Your task to perform on an android device: make emails show in primary in the gmail app Image 0: 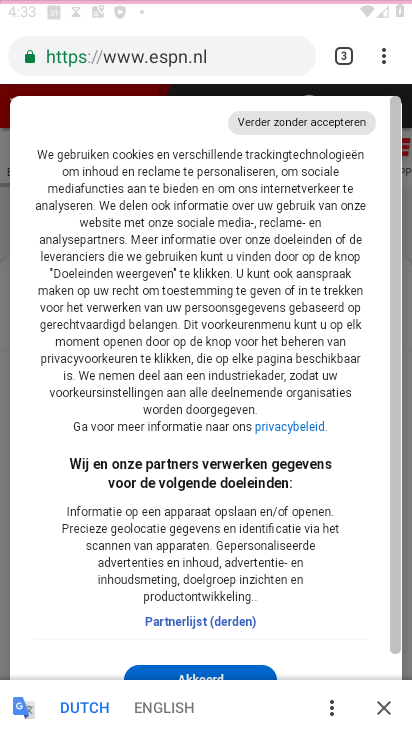
Step 0: click (143, 119)
Your task to perform on an android device: make emails show in primary in the gmail app Image 1: 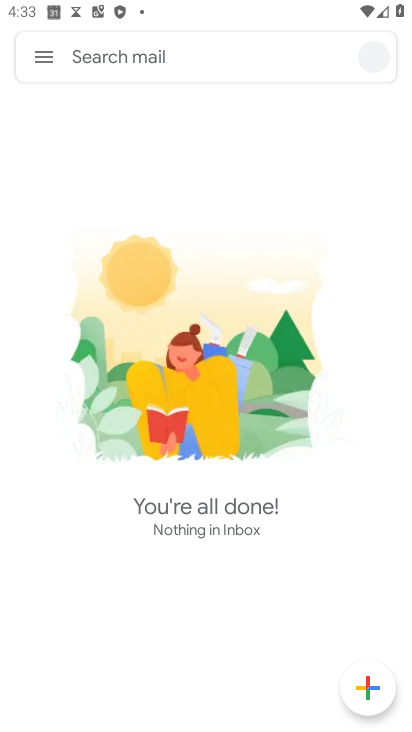
Step 1: drag from (228, 599) to (191, 93)
Your task to perform on an android device: make emails show in primary in the gmail app Image 2: 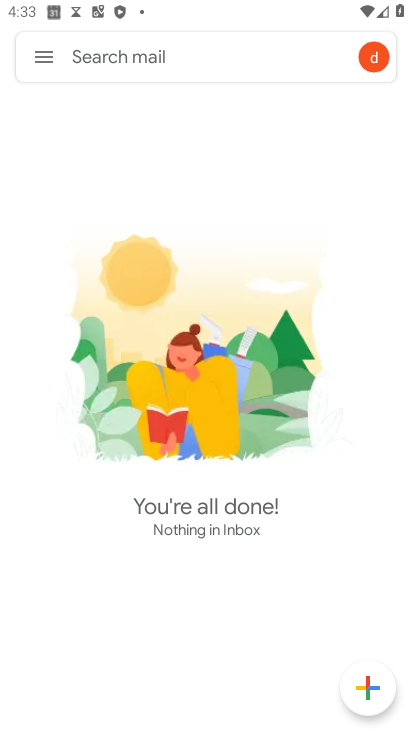
Step 2: press back button
Your task to perform on an android device: make emails show in primary in the gmail app Image 3: 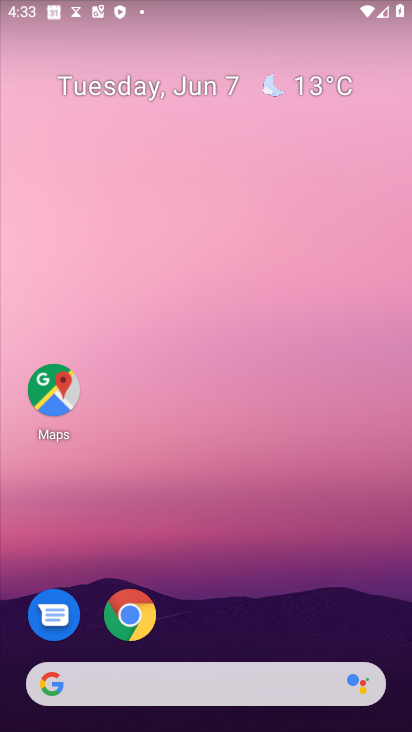
Step 3: drag from (244, 712) to (133, 215)
Your task to perform on an android device: make emails show in primary in the gmail app Image 4: 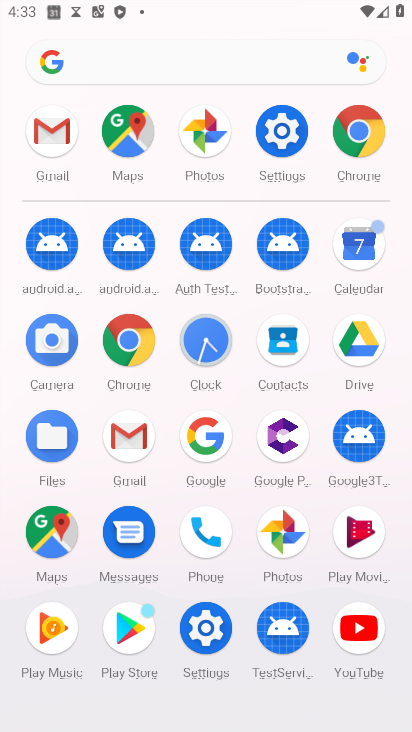
Step 4: click (125, 447)
Your task to perform on an android device: make emails show in primary in the gmail app Image 5: 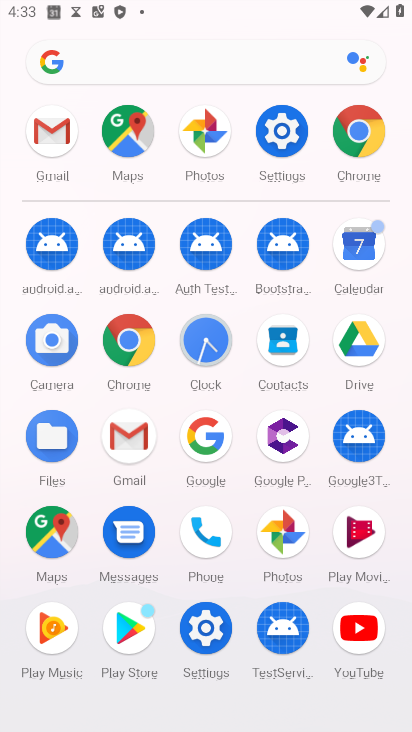
Step 5: click (125, 447)
Your task to perform on an android device: make emails show in primary in the gmail app Image 6: 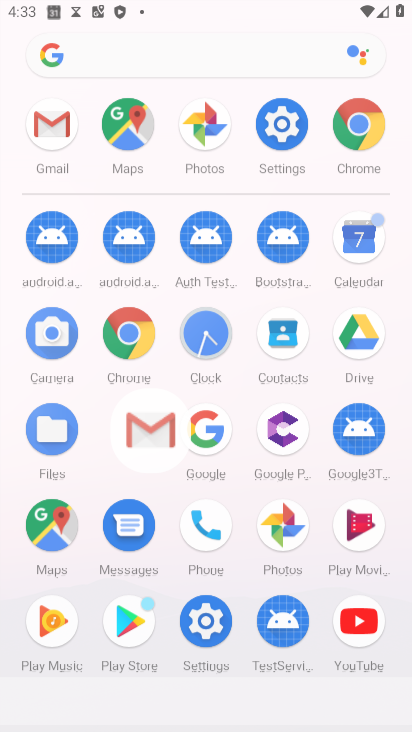
Step 6: click (126, 445)
Your task to perform on an android device: make emails show in primary in the gmail app Image 7: 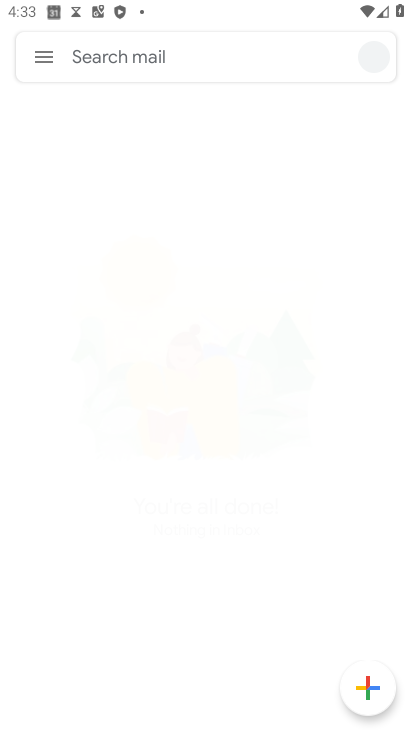
Step 7: click (122, 448)
Your task to perform on an android device: make emails show in primary in the gmail app Image 8: 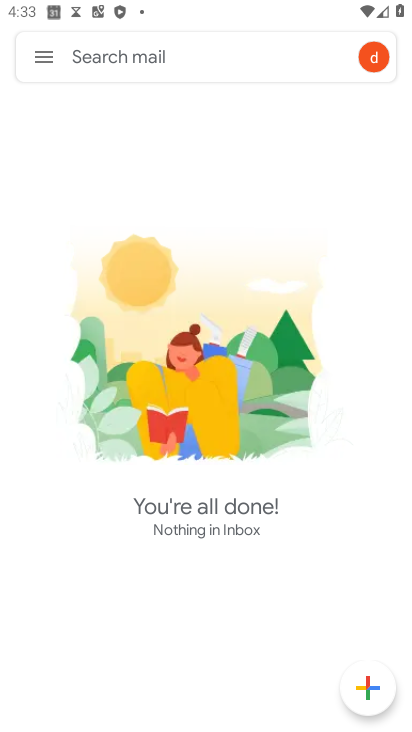
Step 8: click (50, 62)
Your task to perform on an android device: make emails show in primary in the gmail app Image 9: 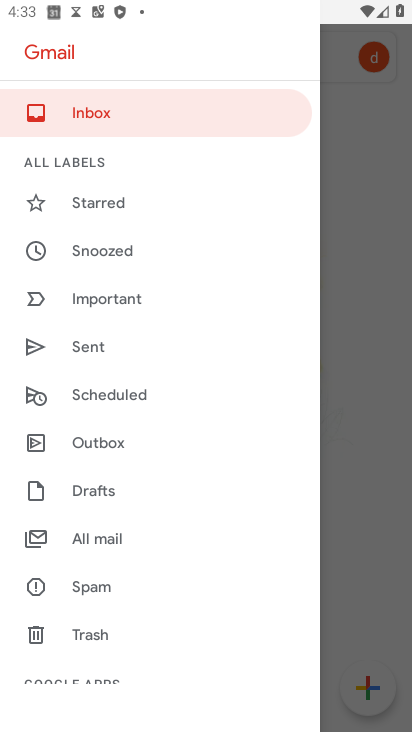
Step 9: drag from (93, 538) to (52, 265)
Your task to perform on an android device: make emails show in primary in the gmail app Image 10: 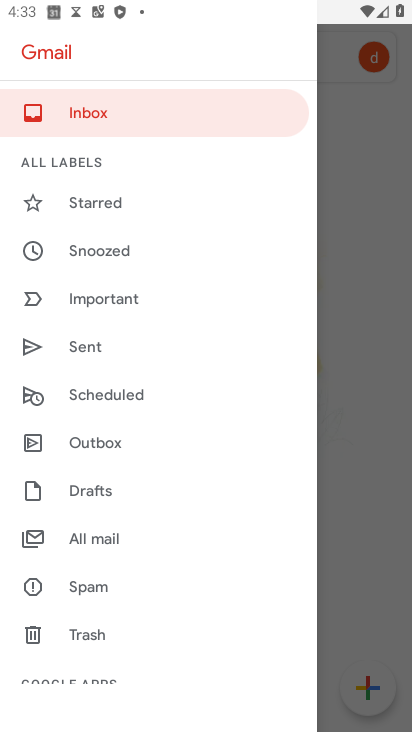
Step 10: drag from (81, 510) to (56, 186)
Your task to perform on an android device: make emails show in primary in the gmail app Image 11: 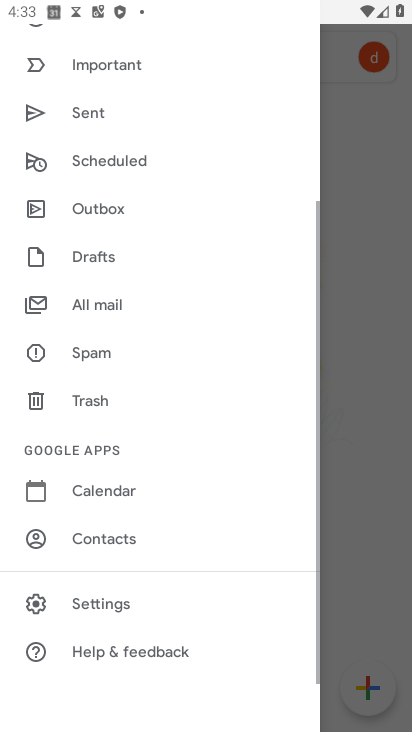
Step 11: drag from (64, 454) to (78, 223)
Your task to perform on an android device: make emails show in primary in the gmail app Image 12: 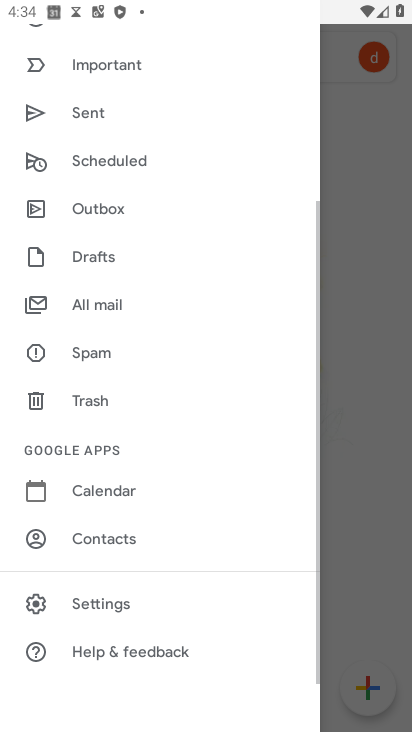
Step 12: click (111, 604)
Your task to perform on an android device: make emails show in primary in the gmail app Image 13: 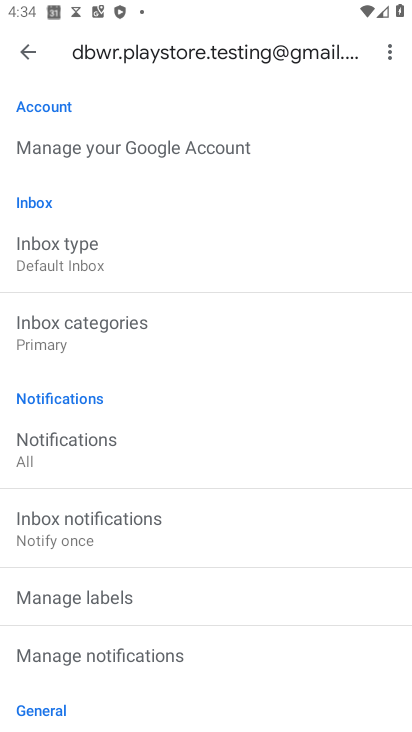
Step 13: drag from (78, 538) to (71, 175)
Your task to perform on an android device: make emails show in primary in the gmail app Image 14: 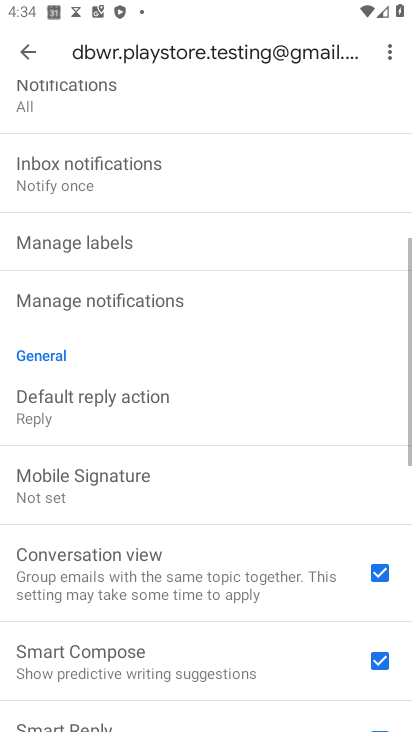
Step 14: drag from (69, 422) to (51, 149)
Your task to perform on an android device: make emails show in primary in the gmail app Image 15: 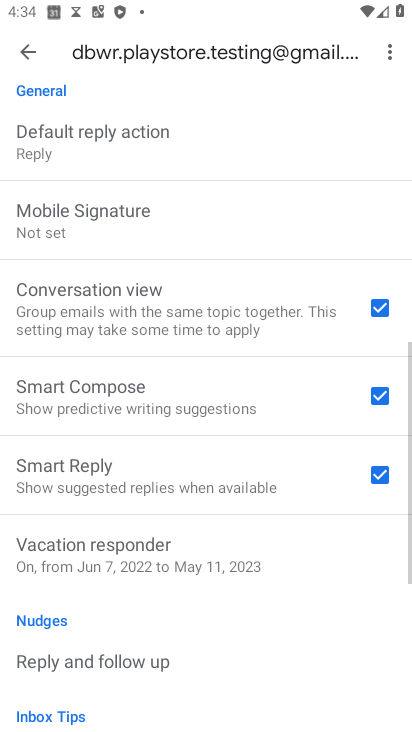
Step 15: drag from (143, 614) to (150, 245)
Your task to perform on an android device: make emails show in primary in the gmail app Image 16: 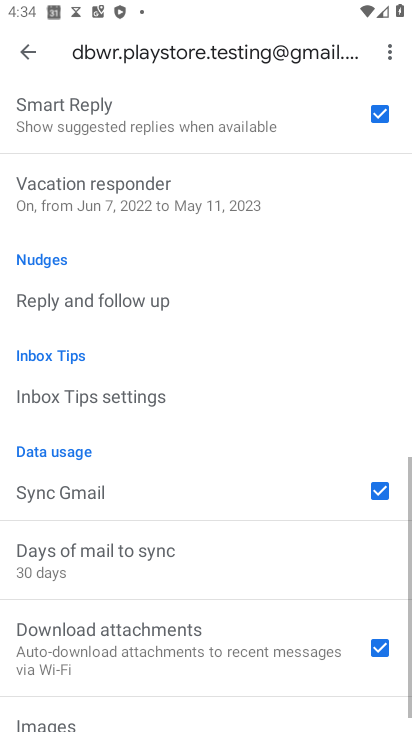
Step 16: drag from (198, 588) to (244, 122)
Your task to perform on an android device: make emails show in primary in the gmail app Image 17: 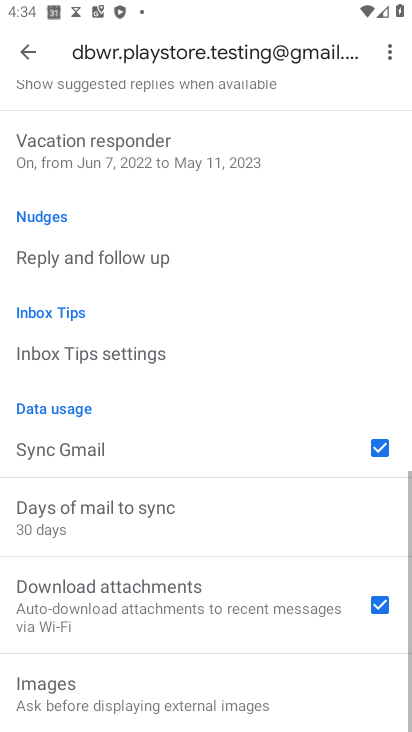
Step 17: drag from (93, 642) to (50, 169)
Your task to perform on an android device: make emails show in primary in the gmail app Image 18: 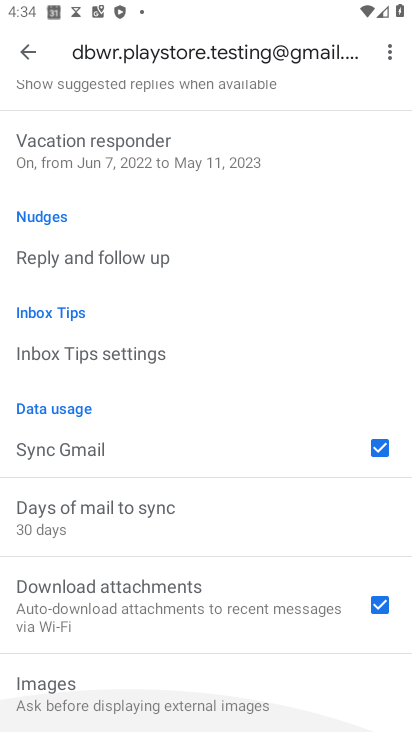
Step 18: drag from (48, 566) to (39, 170)
Your task to perform on an android device: make emails show in primary in the gmail app Image 19: 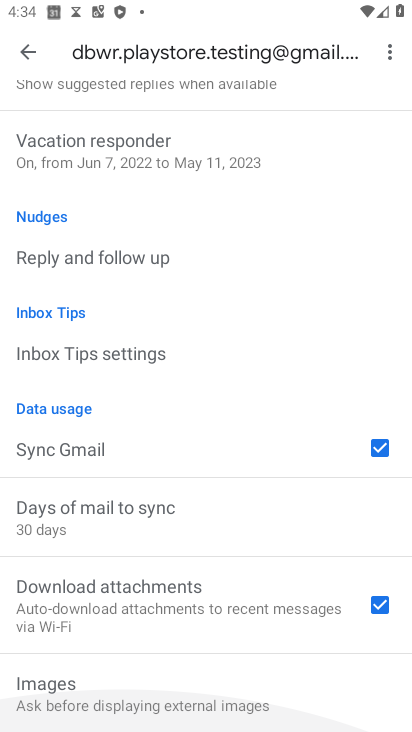
Step 19: drag from (143, 460) to (141, 263)
Your task to perform on an android device: make emails show in primary in the gmail app Image 20: 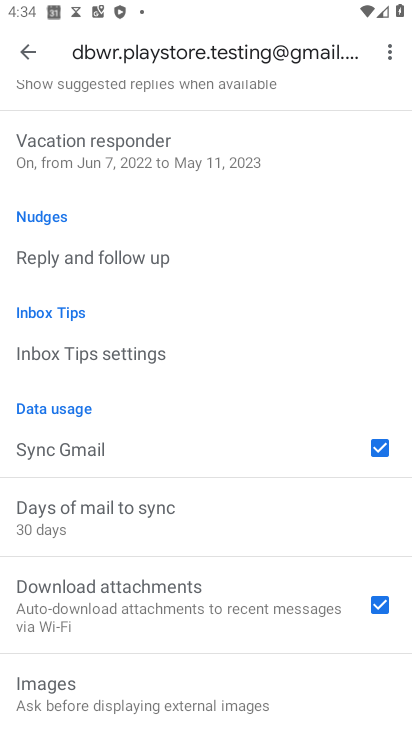
Step 20: drag from (97, 188) to (117, 460)
Your task to perform on an android device: make emails show in primary in the gmail app Image 21: 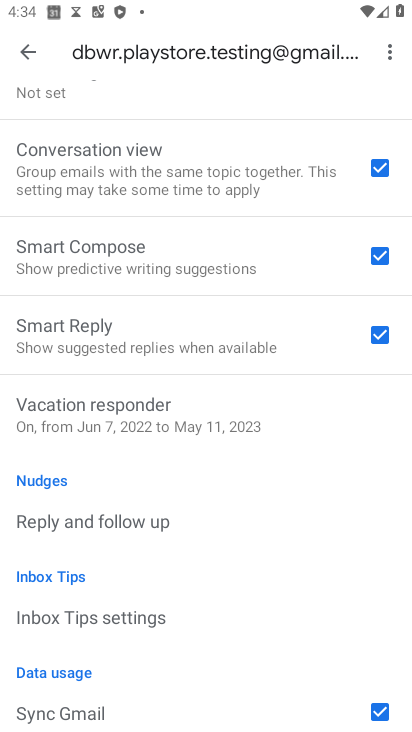
Step 21: click (99, 471)
Your task to perform on an android device: make emails show in primary in the gmail app Image 22: 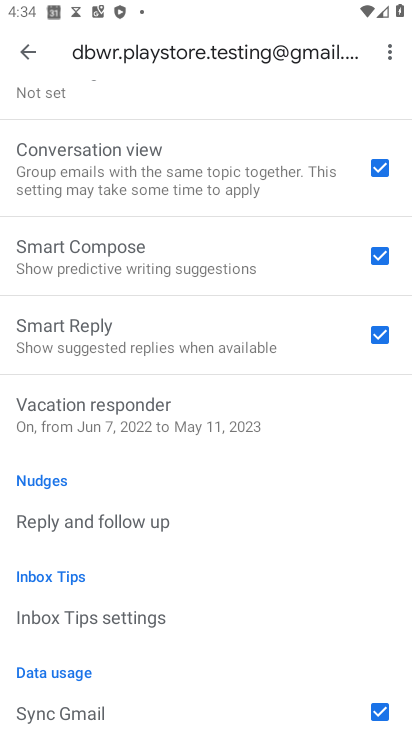
Step 22: task complete